Your task to perform on an android device: Open Chrome and go to the settings page Image 0: 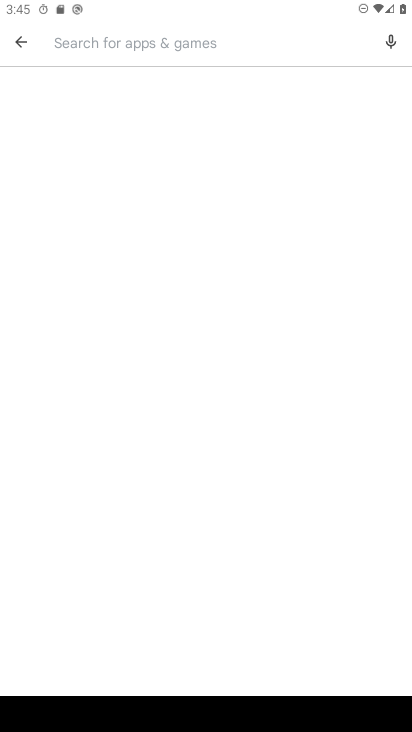
Step 0: press home button
Your task to perform on an android device: Open Chrome and go to the settings page Image 1: 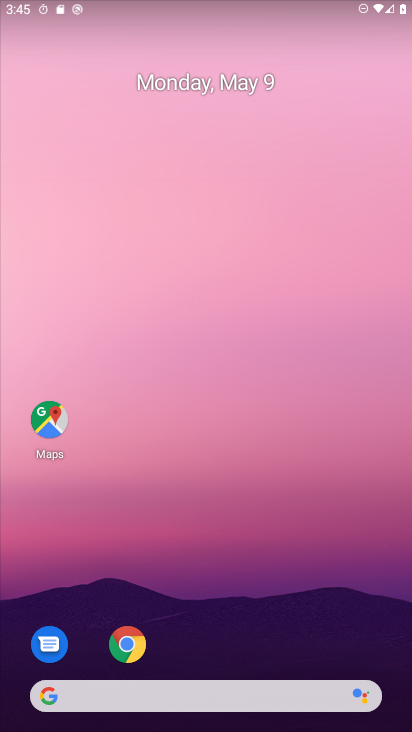
Step 1: click (125, 650)
Your task to perform on an android device: Open Chrome and go to the settings page Image 2: 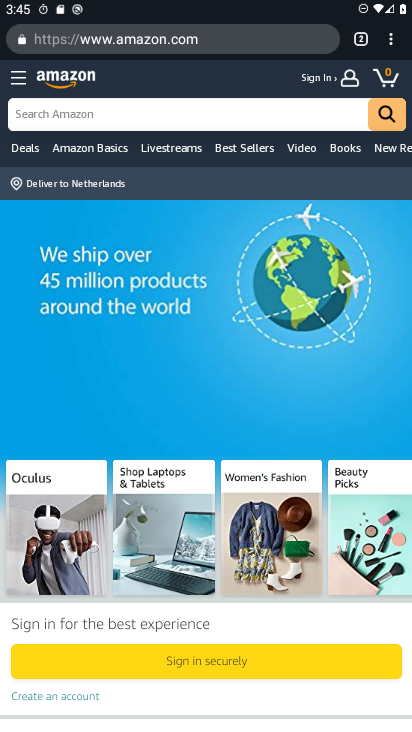
Step 2: click (398, 38)
Your task to perform on an android device: Open Chrome and go to the settings page Image 3: 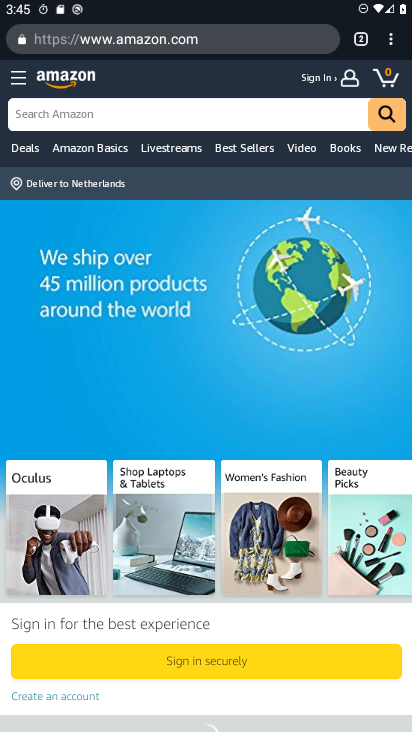
Step 3: click (387, 42)
Your task to perform on an android device: Open Chrome and go to the settings page Image 4: 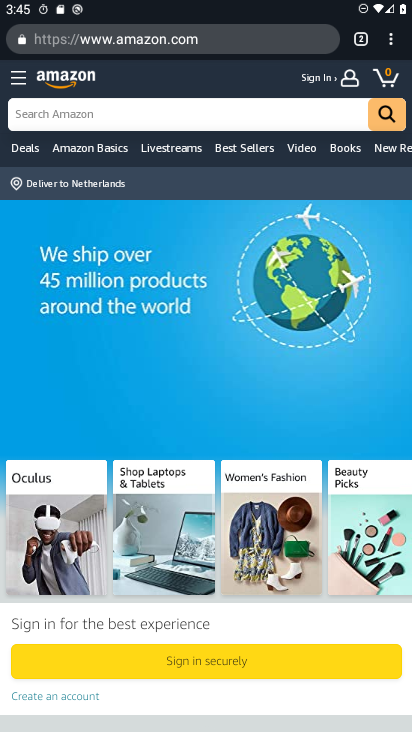
Step 4: click (392, 44)
Your task to perform on an android device: Open Chrome and go to the settings page Image 5: 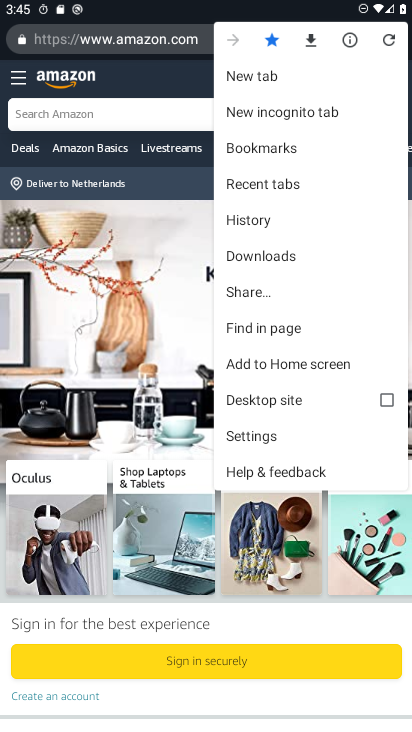
Step 5: click (256, 434)
Your task to perform on an android device: Open Chrome and go to the settings page Image 6: 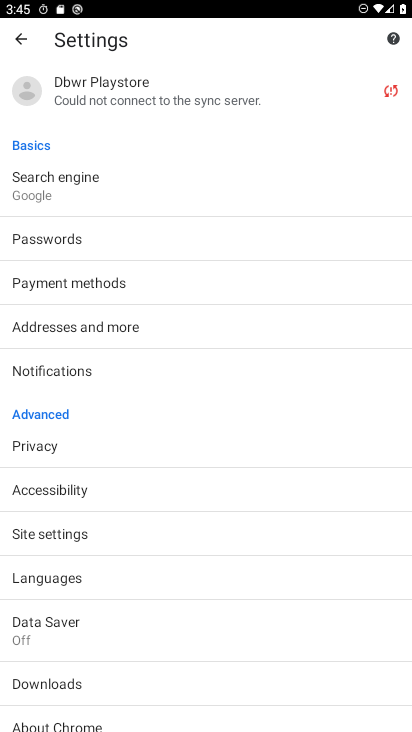
Step 6: task complete